Your task to perform on an android device: What's the weather today? Image 0: 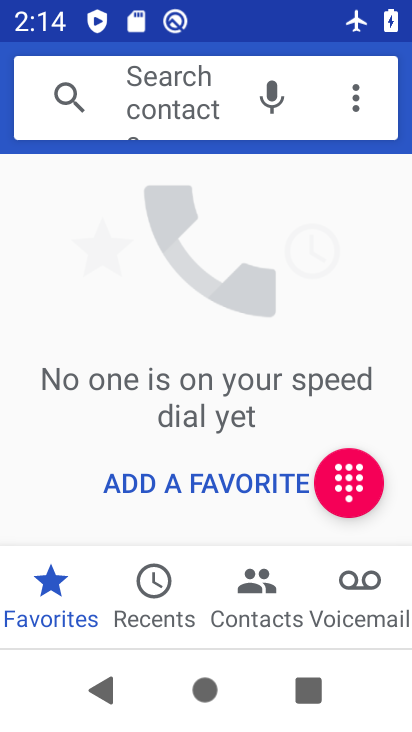
Step 0: click (216, 680)
Your task to perform on an android device: What's the weather today? Image 1: 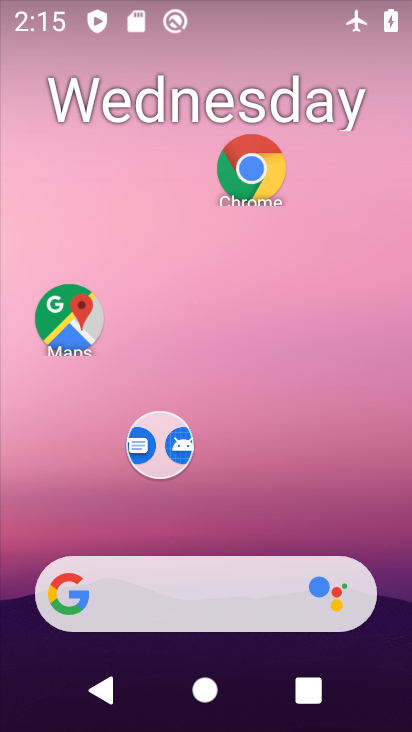
Step 1: drag from (210, 537) to (217, 5)
Your task to perform on an android device: What's the weather today? Image 2: 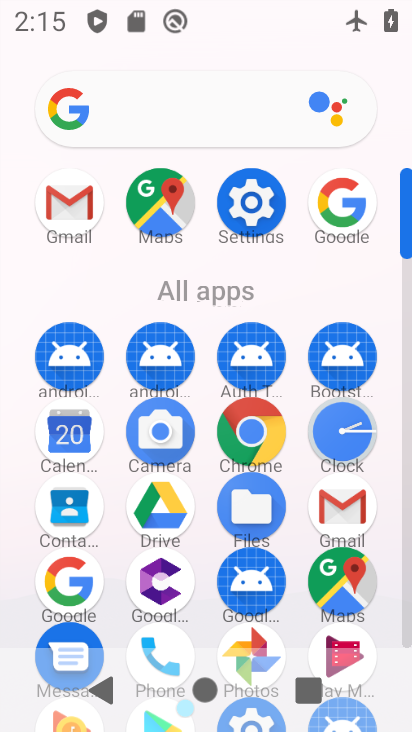
Step 2: click (59, 593)
Your task to perform on an android device: What's the weather today? Image 3: 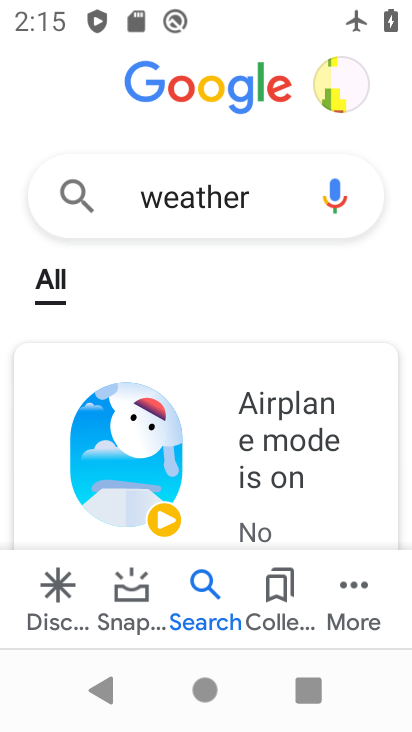
Step 3: task complete